Your task to perform on an android device: visit the assistant section in the google photos Image 0: 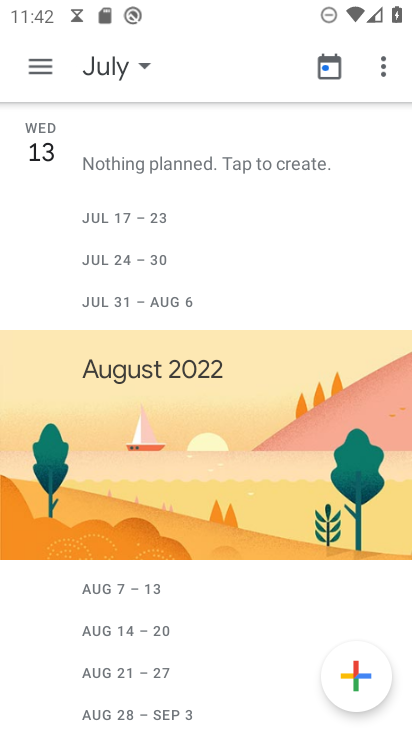
Step 0: press home button
Your task to perform on an android device: visit the assistant section in the google photos Image 1: 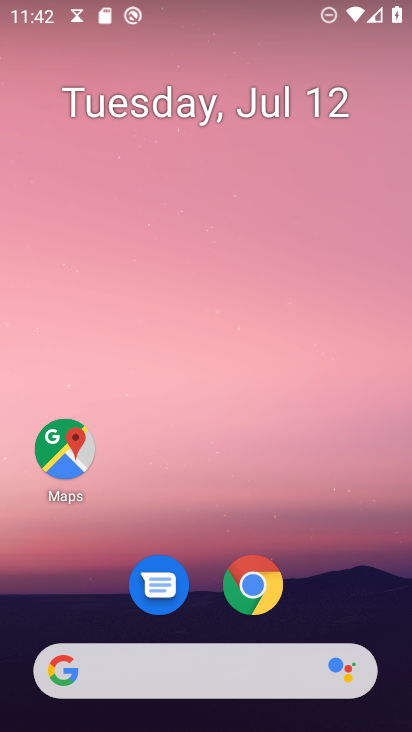
Step 1: drag from (169, 692) to (290, 203)
Your task to perform on an android device: visit the assistant section in the google photos Image 2: 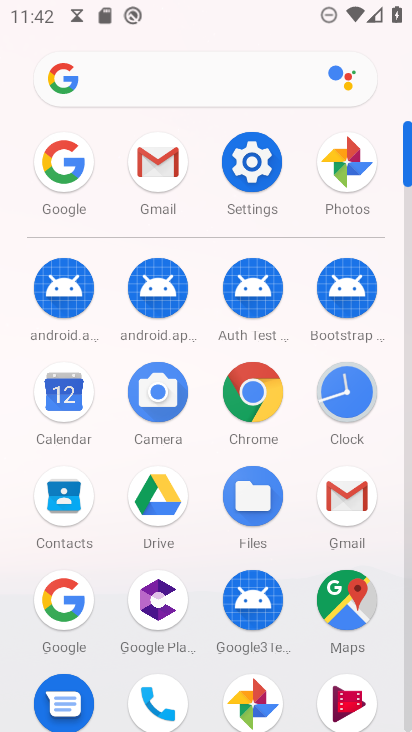
Step 2: click (249, 706)
Your task to perform on an android device: visit the assistant section in the google photos Image 3: 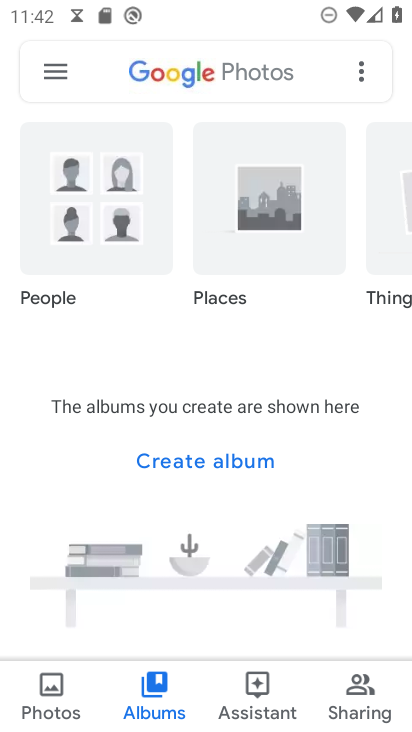
Step 3: click (252, 702)
Your task to perform on an android device: visit the assistant section in the google photos Image 4: 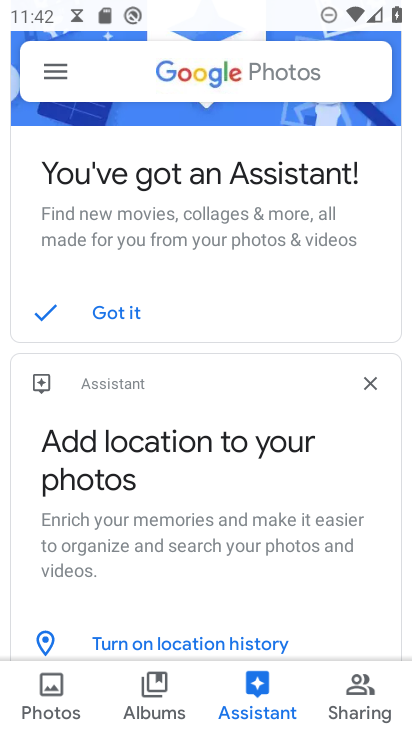
Step 4: task complete